Your task to perform on an android device: turn notification dots on Image 0: 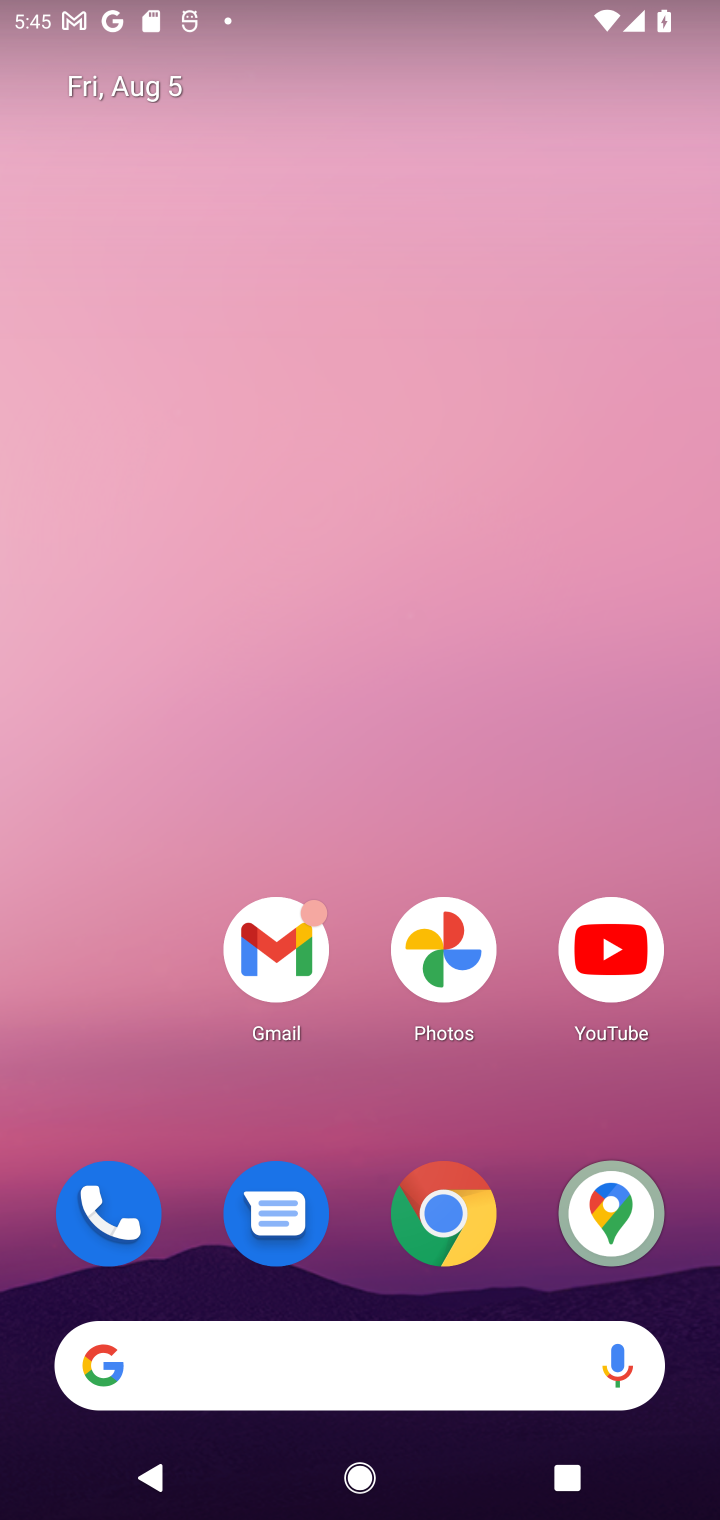
Step 0: drag from (400, 1287) to (508, 325)
Your task to perform on an android device: turn notification dots on Image 1: 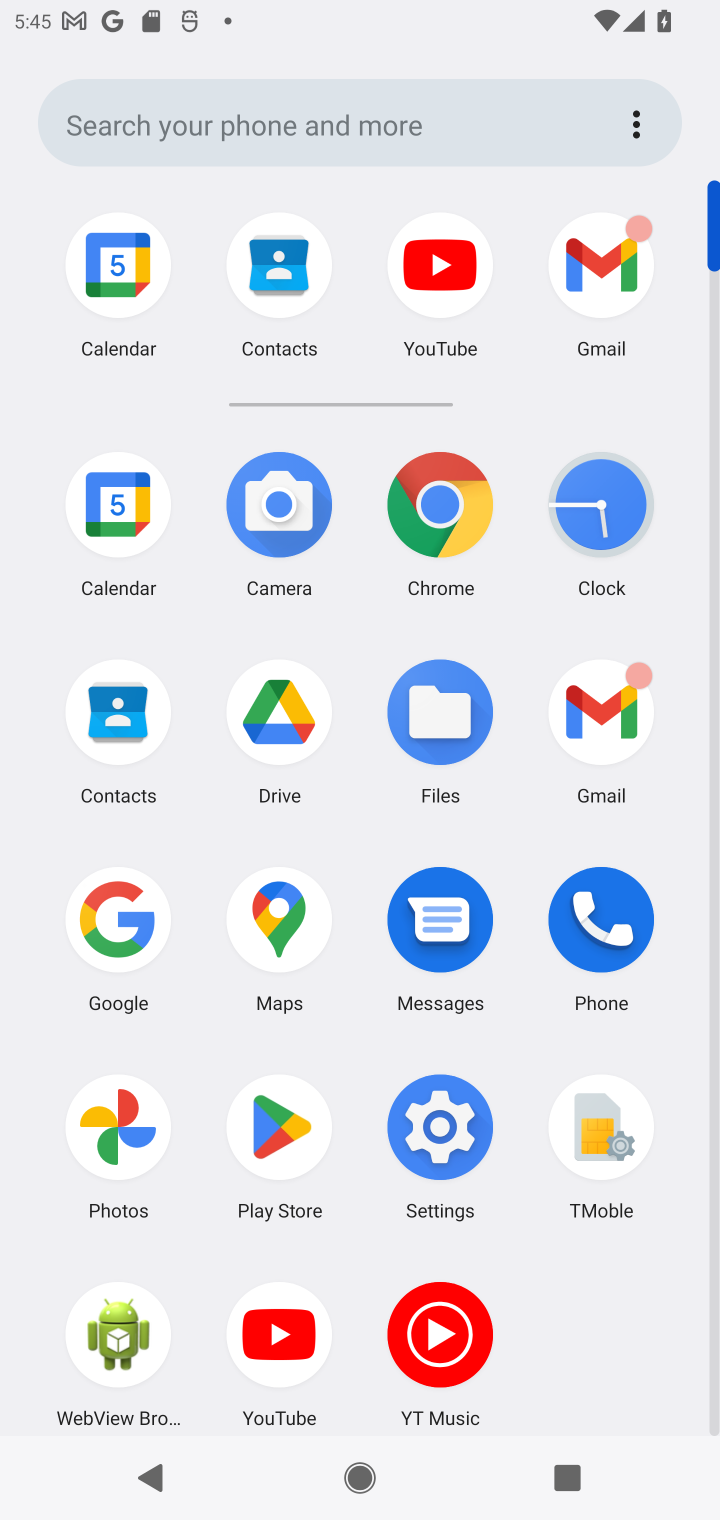
Step 1: click (412, 1159)
Your task to perform on an android device: turn notification dots on Image 2: 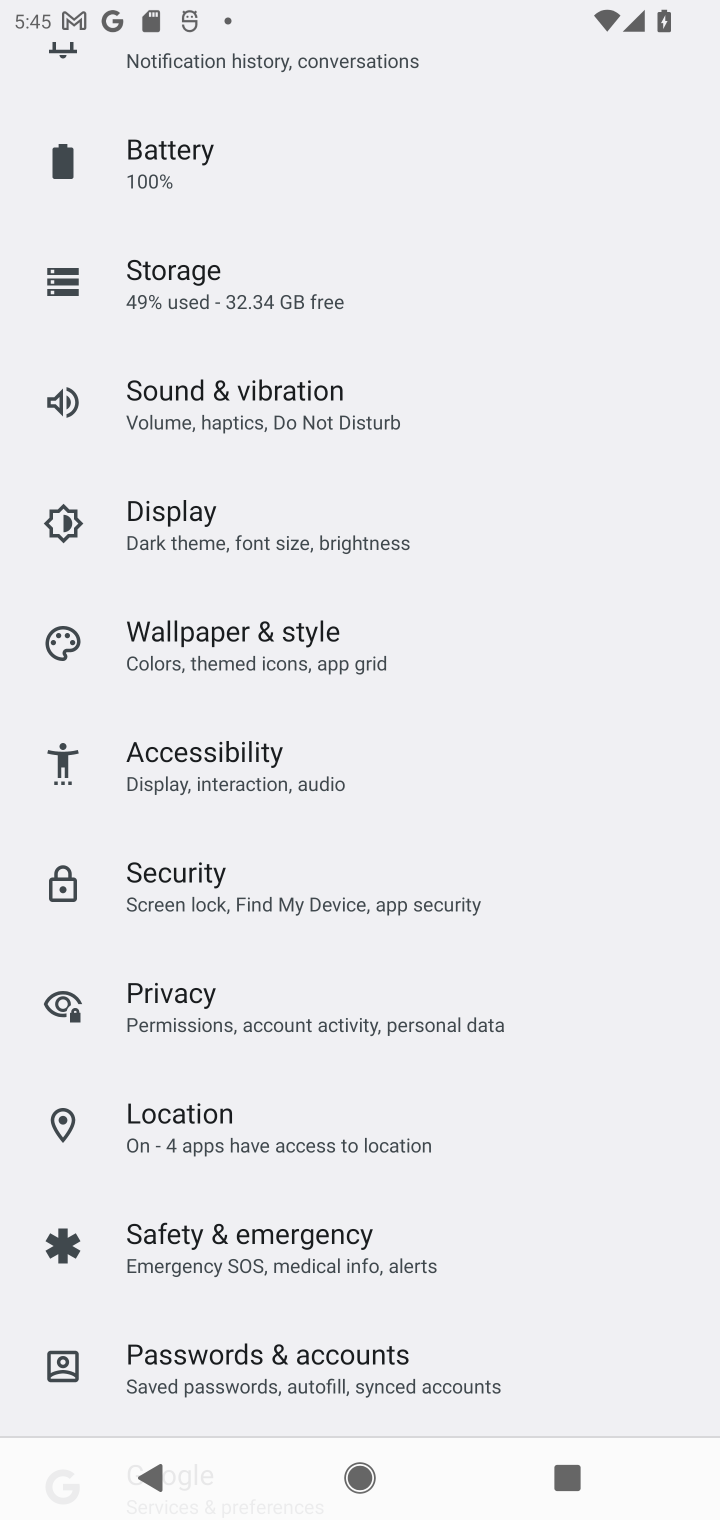
Step 2: task complete